Your task to perform on an android device: Open calendar and show me the second week of next month Image 0: 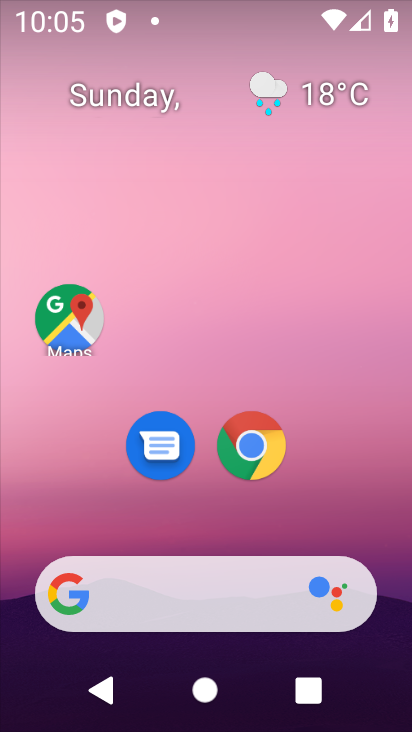
Step 0: press home button
Your task to perform on an android device: Open calendar and show me the second week of next month Image 1: 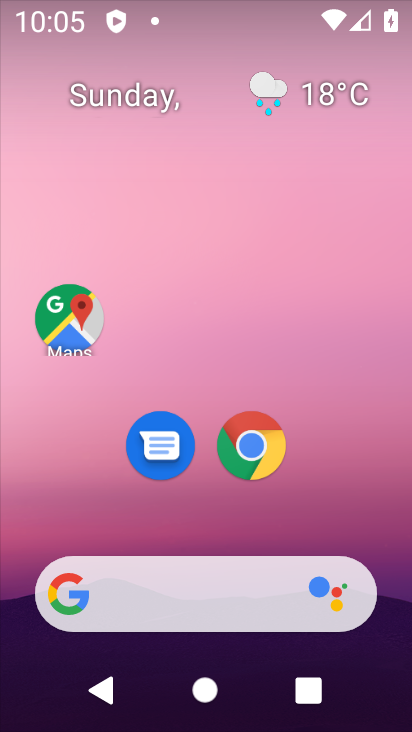
Step 1: drag from (203, 527) to (284, 37)
Your task to perform on an android device: Open calendar and show me the second week of next month Image 2: 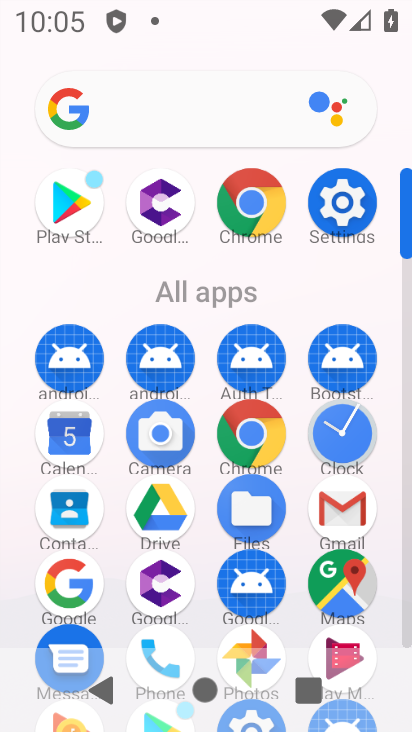
Step 2: click (66, 427)
Your task to perform on an android device: Open calendar and show me the second week of next month Image 3: 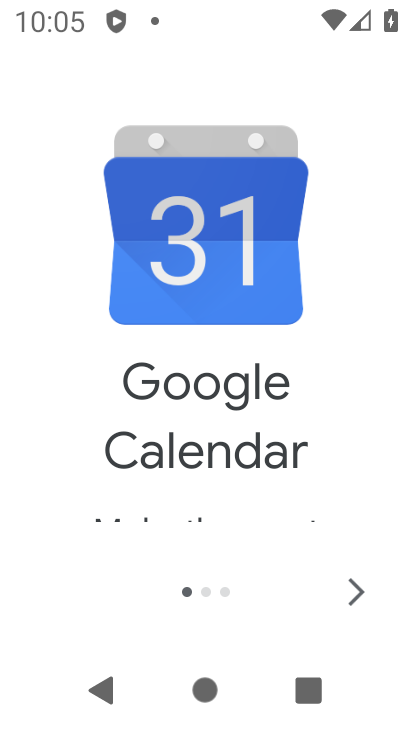
Step 3: click (352, 588)
Your task to perform on an android device: Open calendar and show me the second week of next month Image 4: 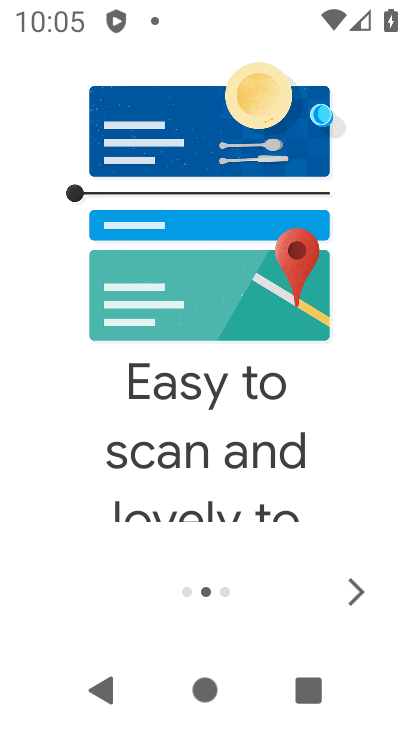
Step 4: click (349, 590)
Your task to perform on an android device: Open calendar and show me the second week of next month Image 5: 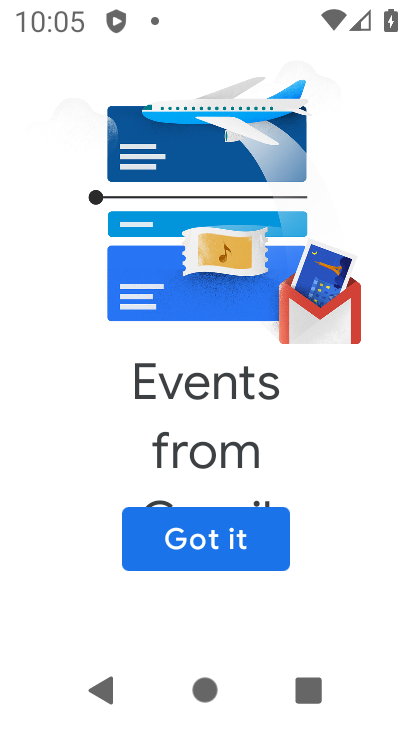
Step 5: click (214, 536)
Your task to perform on an android device: Open calendar and show me the second week of next month Image 6: 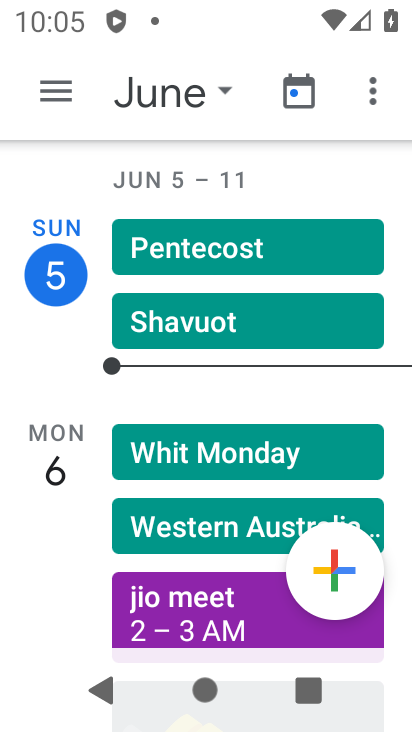
Step 6: click (217, 83)
Your task to perform on an android device: Open calendar and show me the second week of next month Image 7: 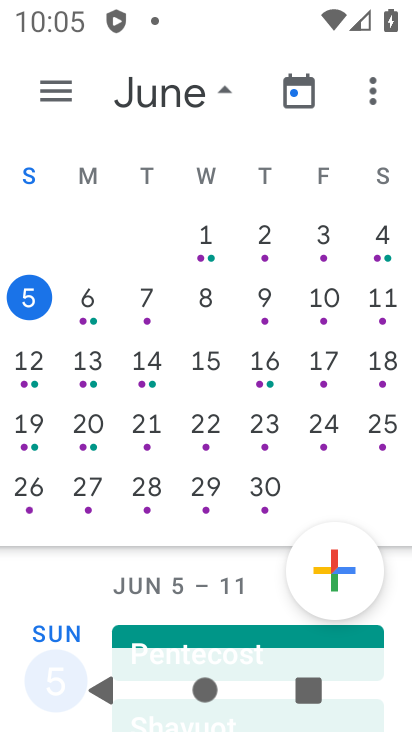
Step 7: drag from (363, 303) to (12, 303)
Your task to perform on an android device: Open calendar and show me the second week of next month Image 8: 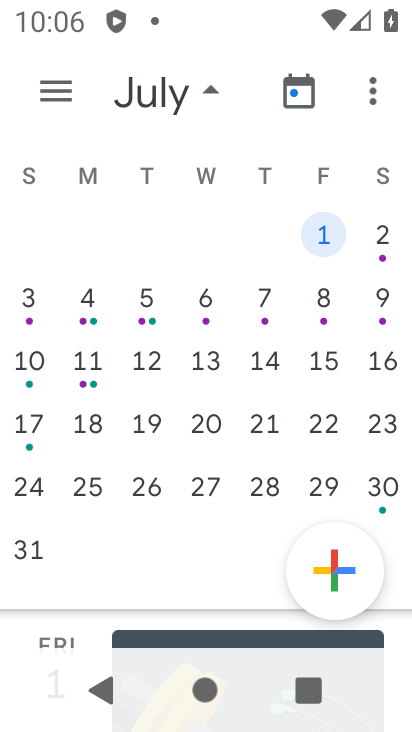
Step 8: click (36, 364)
Your task to perform on an android device: Open calendar and show me the second week of next month Image 9: 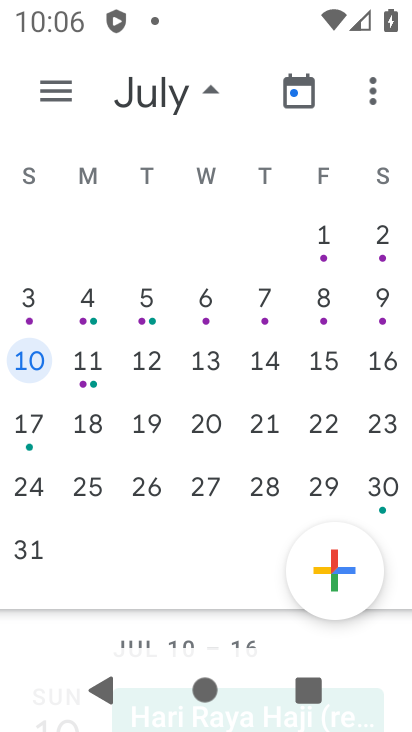
Step 9: click (214, 91)
Your task to perform on an android device: Open calendar and show me the second week of next month Image 10: 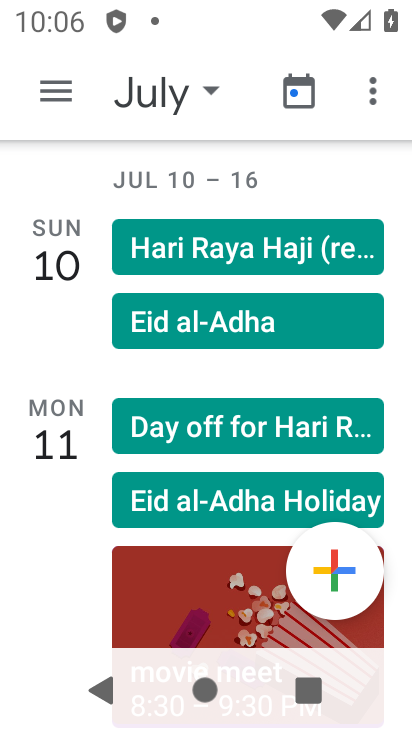
Step 10: task complete